Your task to perform on an android device: show emergency info Image 0: 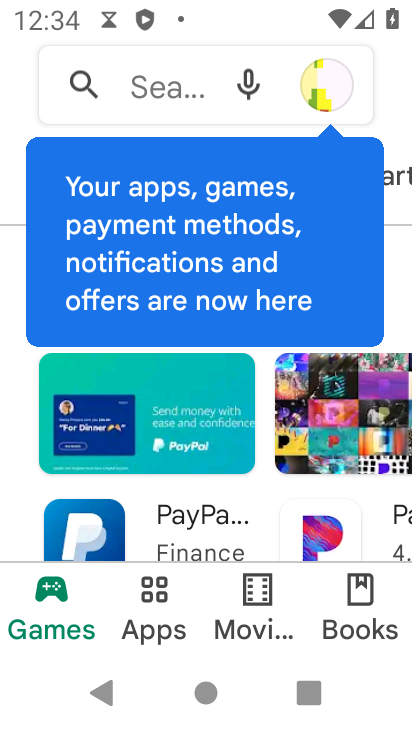
Step 0: press home button
Your task to perform on an android device: show emergency info Image 1: 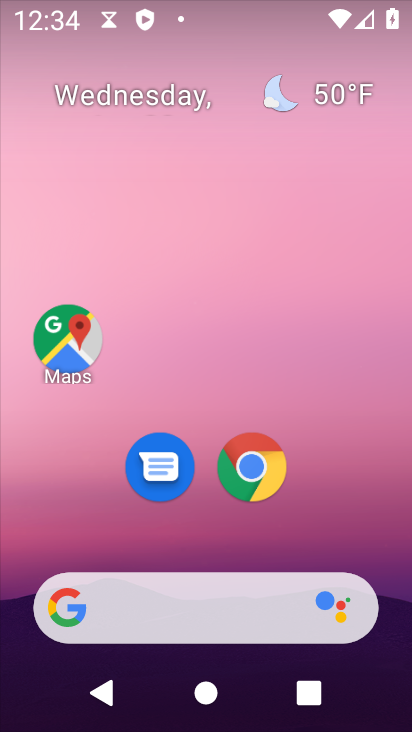
Step 1: drag from (209, 386) to (259, 14)
Your task to perform on an android device: show emergency info Image 2: 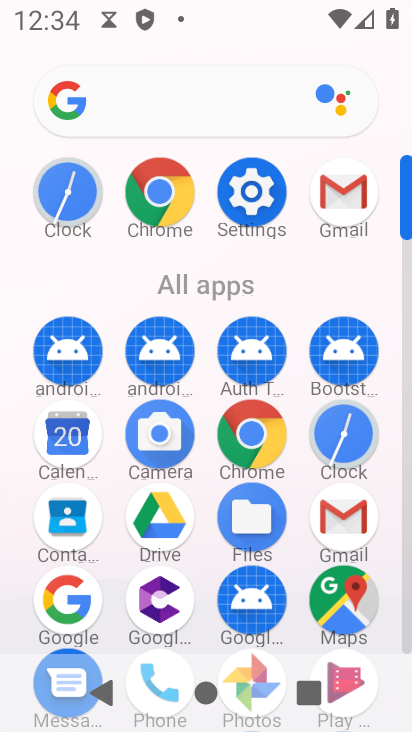
Step 2: click (261, 178)
Your task to perform on an android device: show emergency info Image 3: 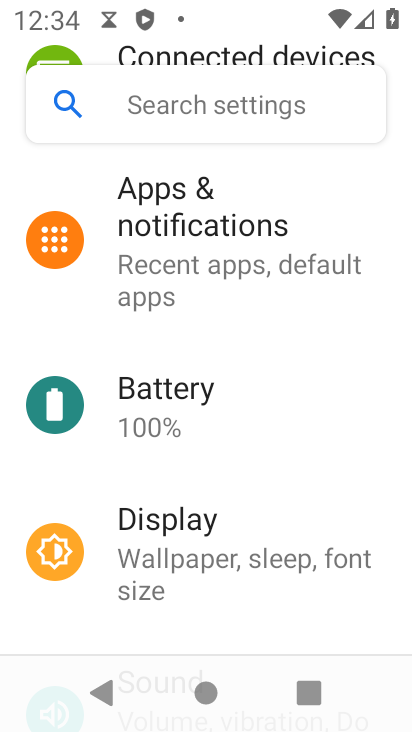
Step 3: drag from (188, 495) to (283, 31)
Your task to perform on an android device: show emergency info Image 4: 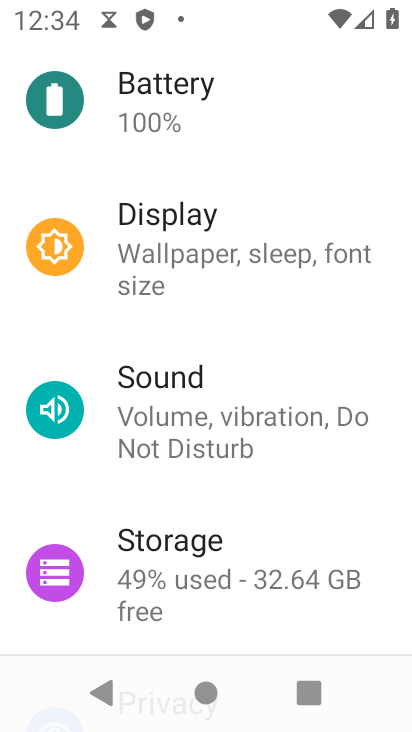
Step 4: drag from (206, 565) to (281, 149)
Your task to perform on an android device: show emergency info Image 5: 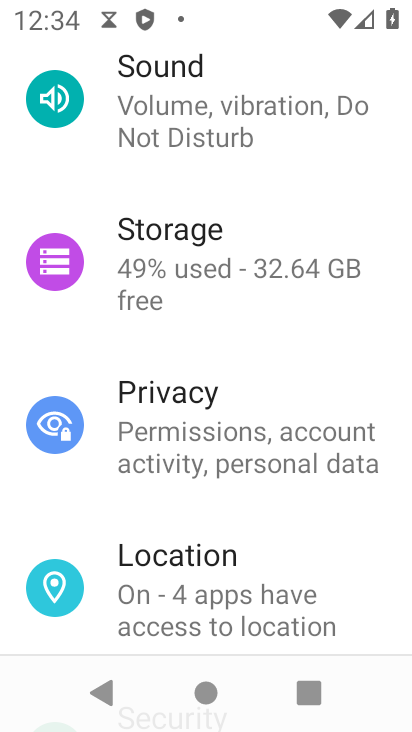
Step 5: drag from (215, 423) to (243, 111)
Your task to perform on an android device: show emergency info Image 6: 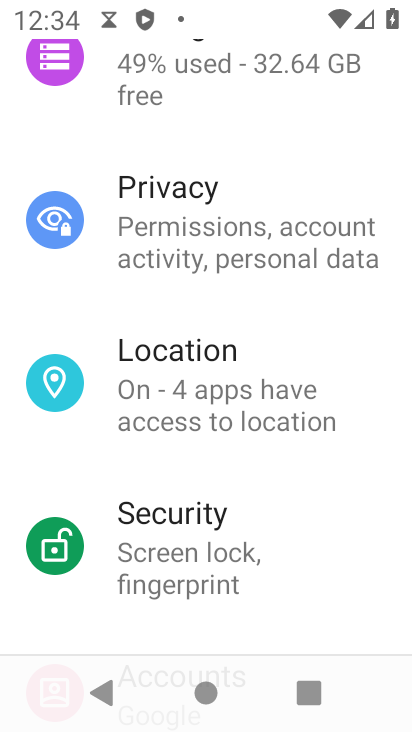
Step 6: drag from (172, 560) to (200, 135)
Your task to perform on an android device: show emergency info Image 7: 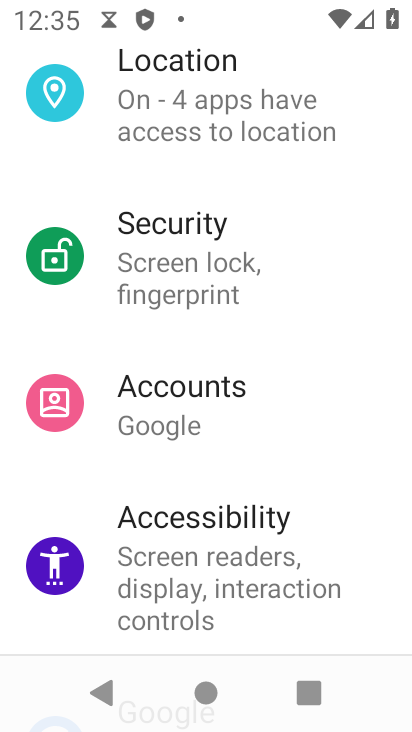
Step 7: drag from (176, 565) to (277, 126)
Your task to perform on an android device: show emergency info Image 8: 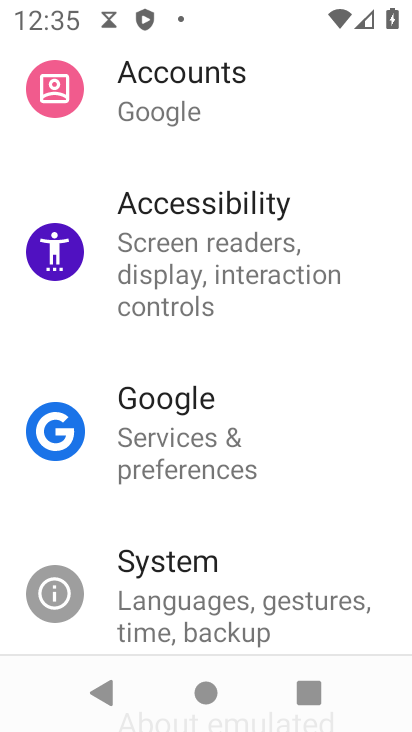
Step 8: drag from (214, 447) to (243, 117)
Your task to perform on an android device: show emergency info Image 9: 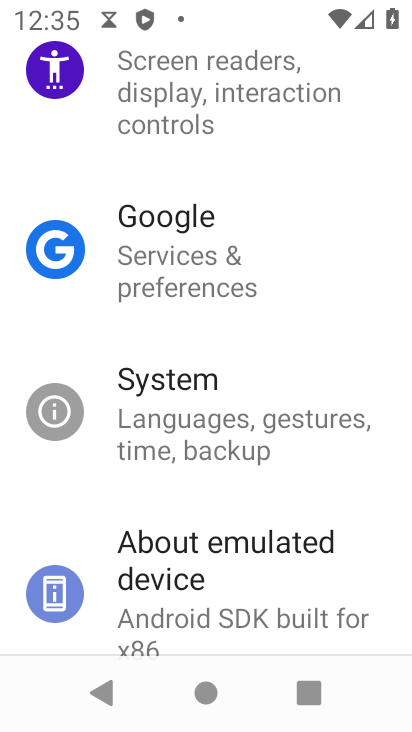
Step 9: click (205, 591)
Your task to perform on an android device: show emergency info Image 10: 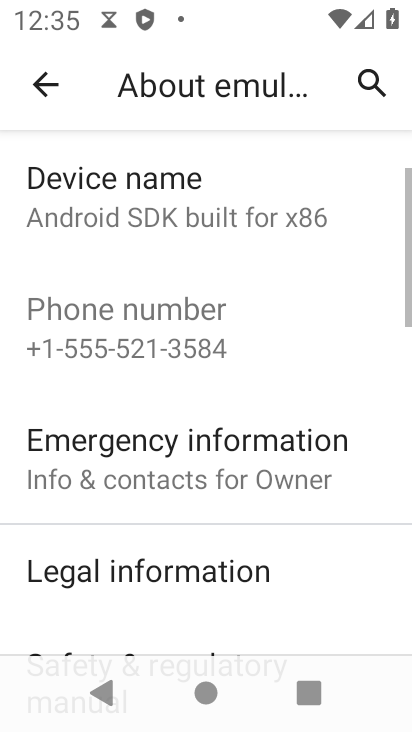
Step 10: click (197, 483)
Your task to perform on an android device: show emergency info Image 11: 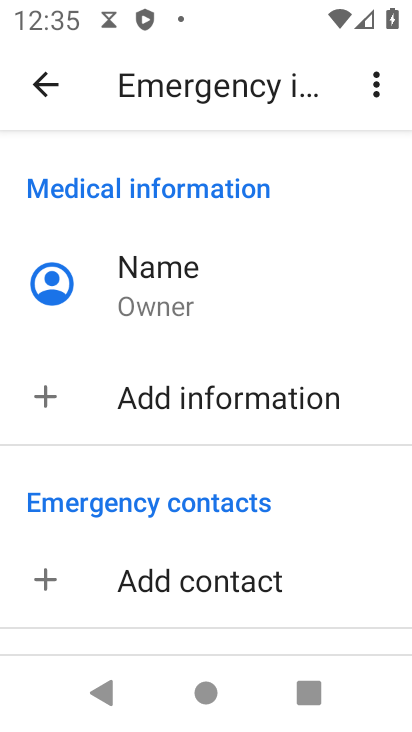
Step 11: task complete